Your task to perform on an android device: Open Google Maps Image 0: 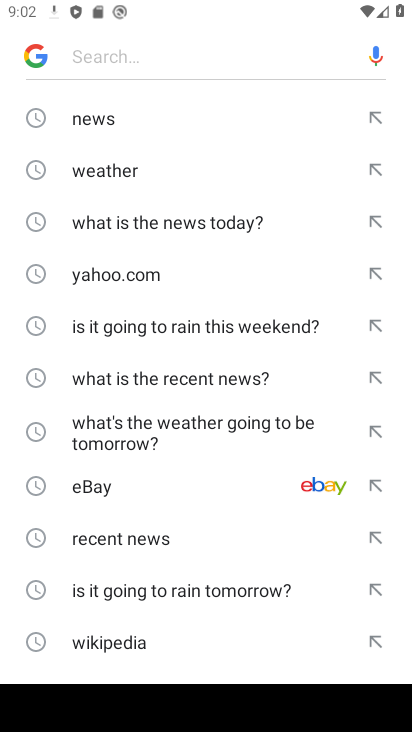
Step 0: press home button
Your task to perform on an android device: Open Google Maps Image 1: 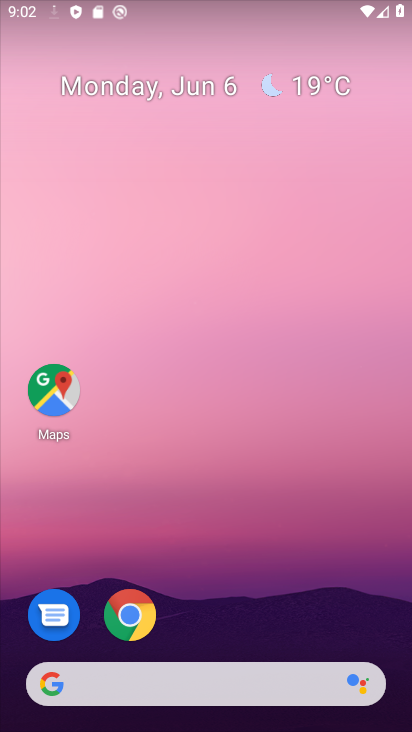
Step 1: click (40, 391)
Your task to perform on an android device: Open Google Maps Image 2: 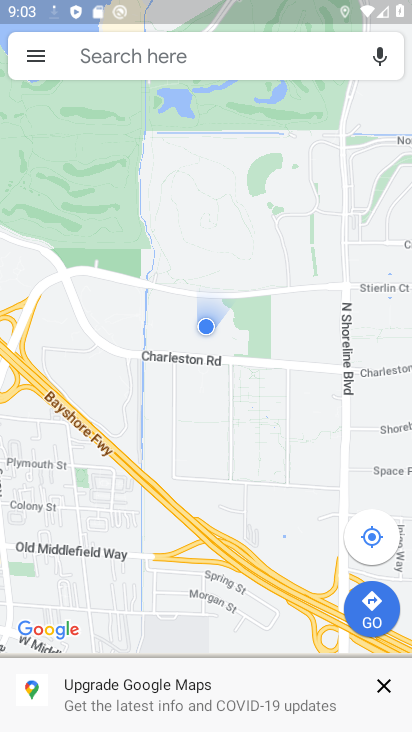
Step 2: task complete